Your task to perform on an android device: What's the weather? Image 0: 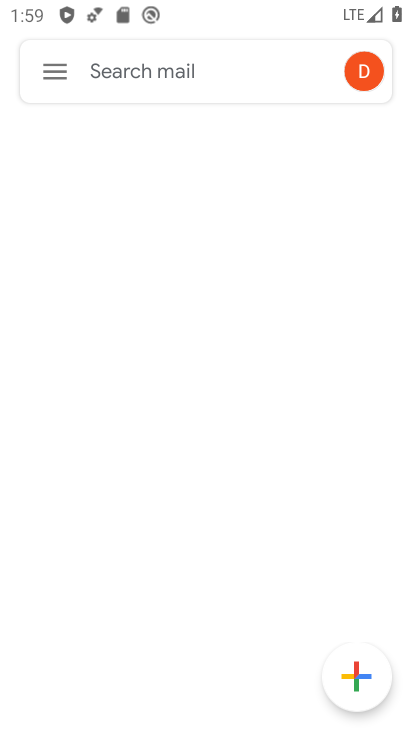
Step 0: press home button
Your task to perform on an android device: What's the weather? Image 1: 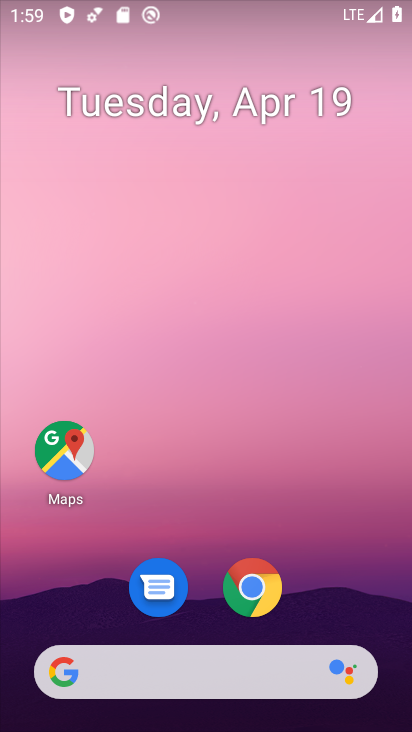
Step 1: drag from (41, 226) to (398, 412)
Your task to perform on an android device: What's the weather? Image 2: 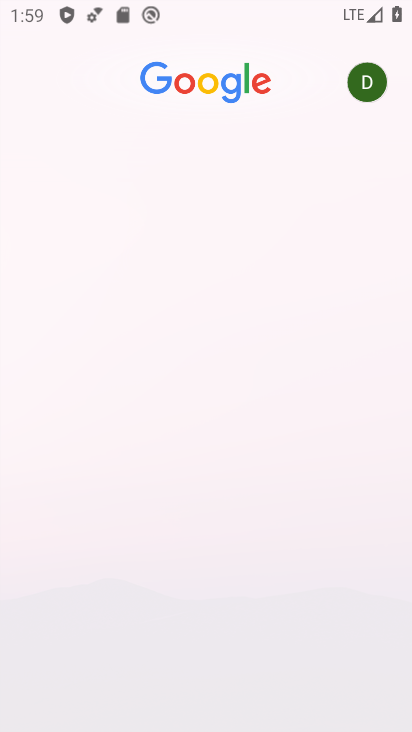
Step 2: click (360, 282)
Your task to perform on an android device: What's the weather? Image 3: 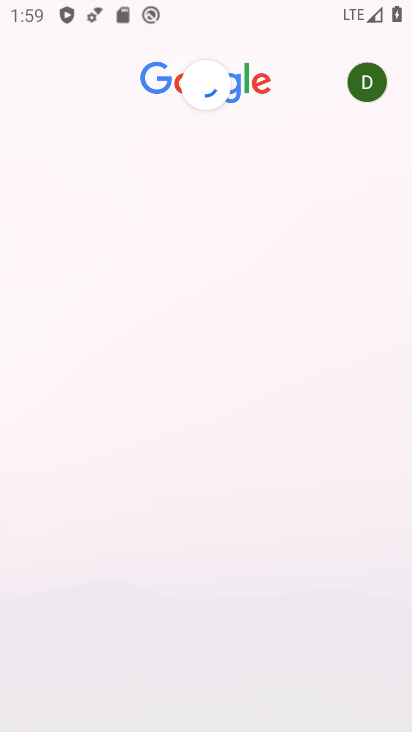
Step 3: click (348, 287)
Your task to perform on an android device: What's the weather? Image 4: 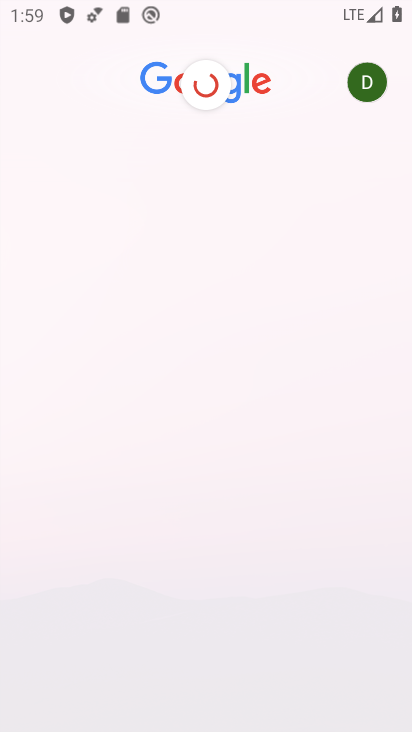
Step 4: click (388, 222)
Your task to perform on an android device: What's the weather? Image 5: 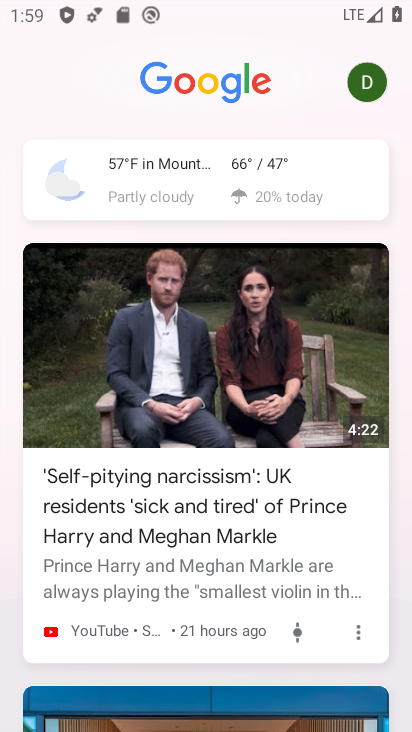
Step 5: click (202, 173)
Your task to perform on an android device: What's the weather? Image 6: 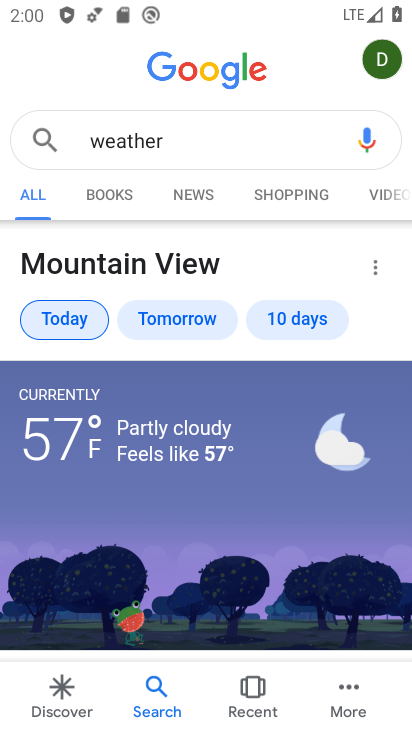
Step 6: click (186, 317)
Your task to perform on an android device: What's the weather? Image 7: 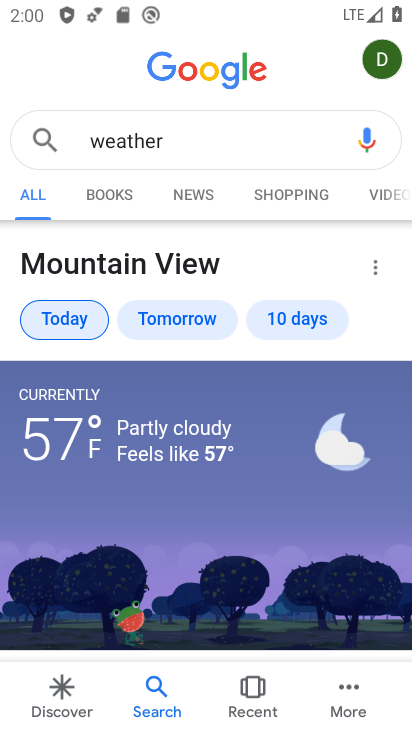
Step 7: click (186, 317)
Your task to perform on an android device: What's the weather? Image 8: 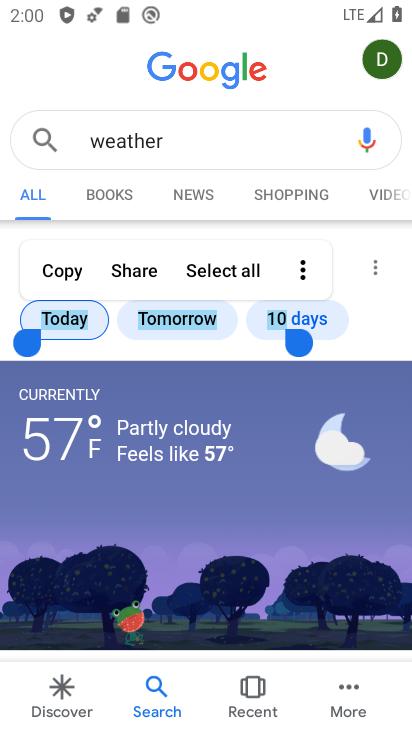
Step 8: click (61, 314)
Your task to perform on an android device: What's the weather? Image 9: 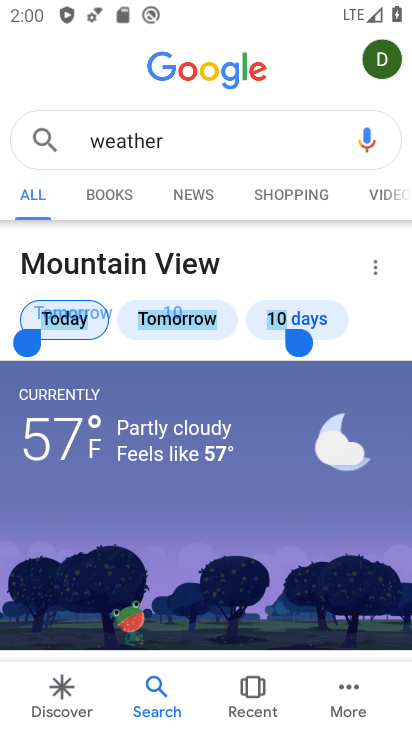
Step 9: click (61, 314)
Your task to perform on an android device: What's the weather? Image 10: 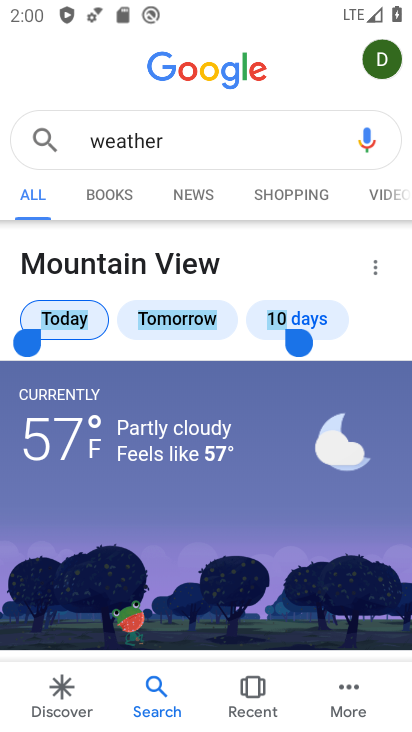
Step 10: click (62, 321)
Your task to perform on an android device: What's the weather? Image 11: 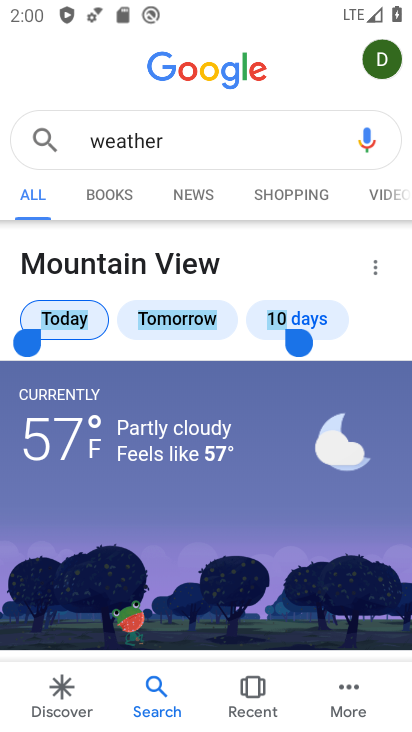
Step 11: click (118, 437)
Your task to perform on an android device: What's the weather? Image 12: 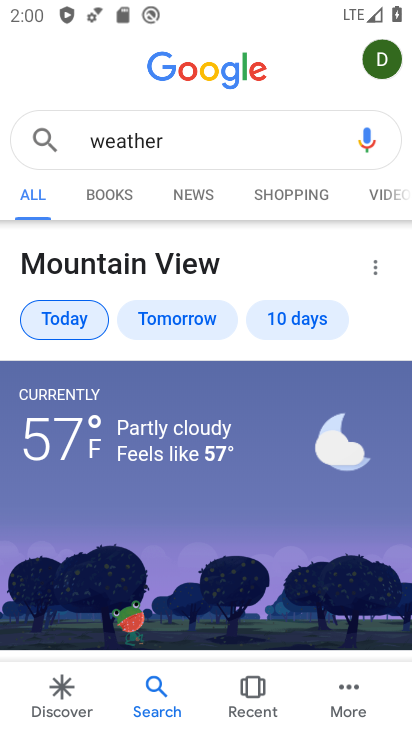
Step 12: click (131, 383)
Your task to perform on an android device: What's the weather? Image 13: 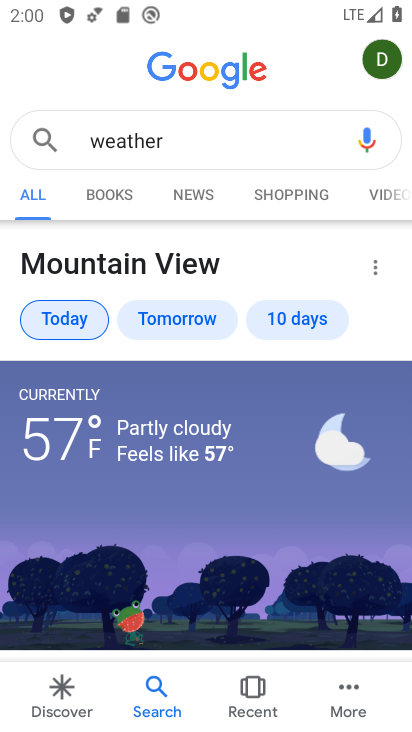
Step 13: task complete